Your task to perform on an android device: empty trash in the gmail app Image 0: 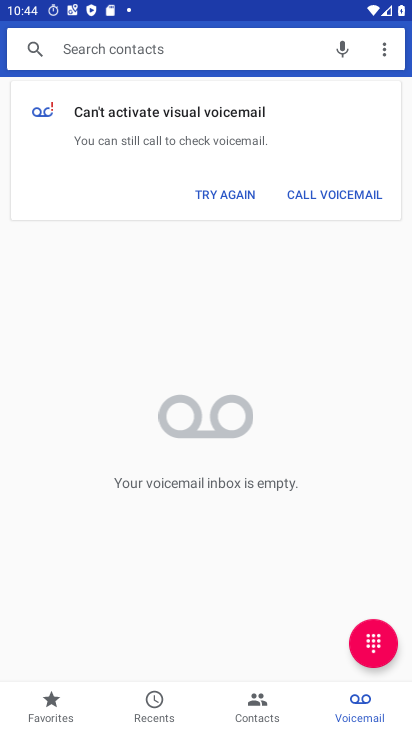
Step 0: press home button
Your task to perform on an android device: empty trash in the gmail app Image 1: 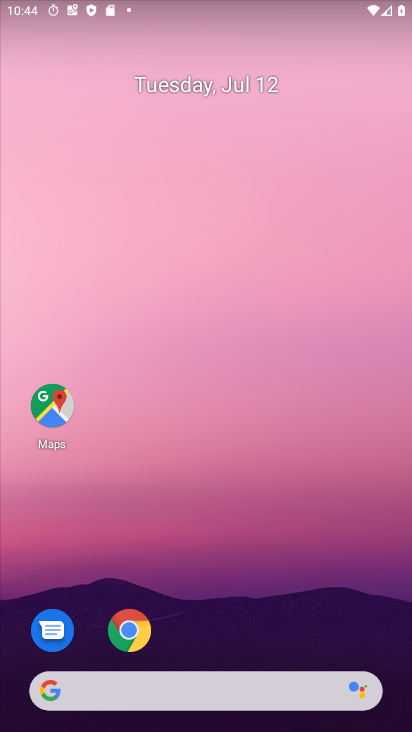
Step 1: drag from (205, 643) to (209, 86)
Your task to perform on an android device: empty trash in the gmail app Image 2: 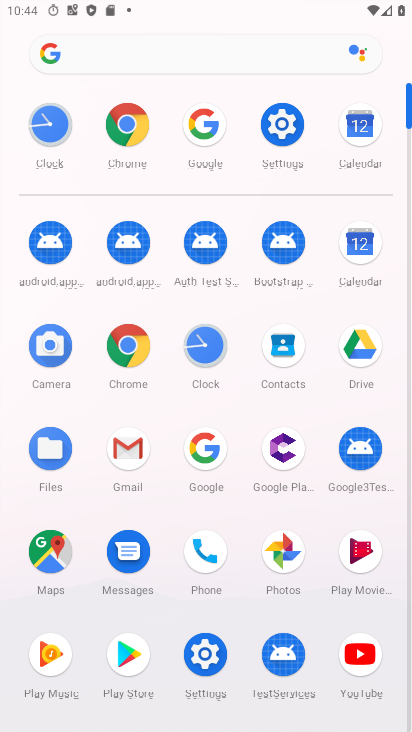
Step 2: click (129, 448)
Your task to perform on an android device: empty trash in the gmail app Image 3: 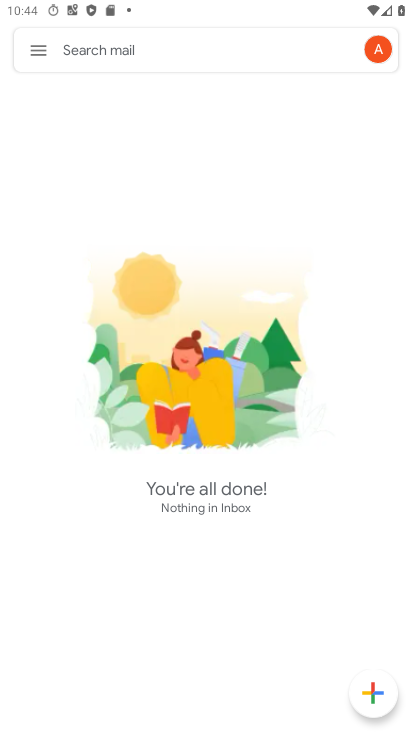
Step 3: click (41, 56)
Your task to perform on an android device: empty trash in the gmail app Image 4: 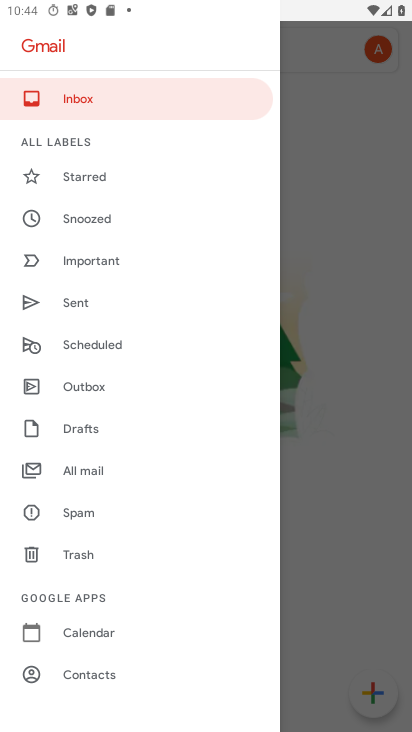
Step 4: click (82, 553)
Your task to perform on an android device: empty trash in the gmail app Image 5: 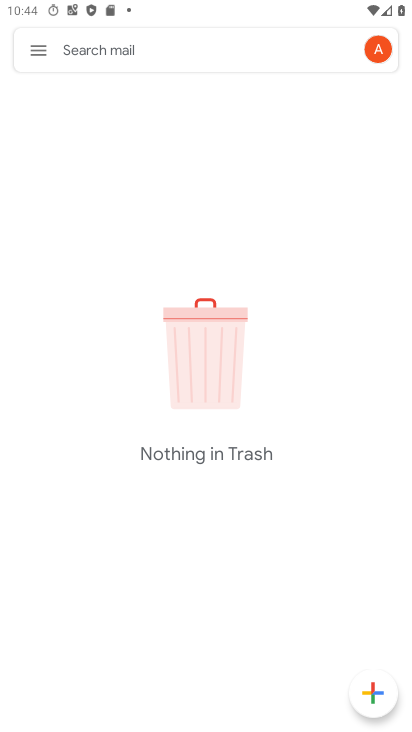
Step 5: task complete